Your task to perform on an android device: Open settings on Google Maps Image 0: 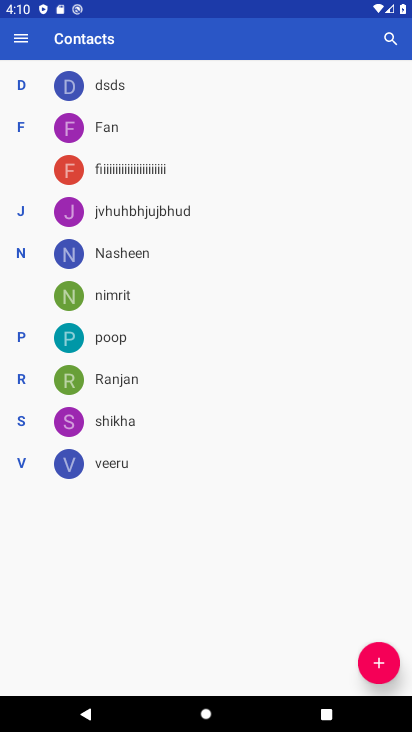
Step 0: press home button
Your task to perform on an android device: Open settings on Google Maps Image 1: 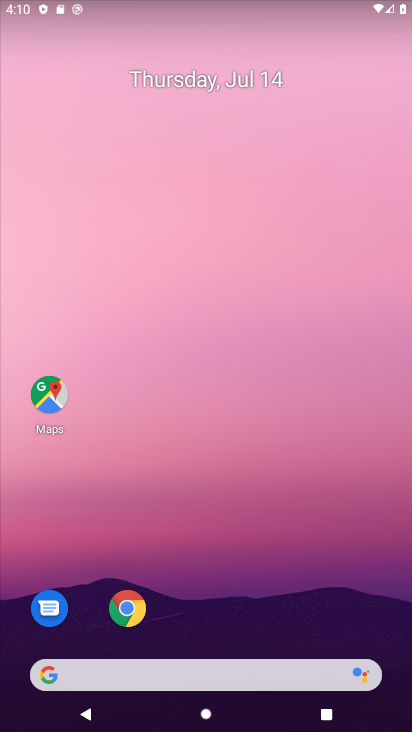
Step 1: drag from (216, 607) to (216, 152)
Your task to perform on an android device: Open settings on Google Maps Image 2: 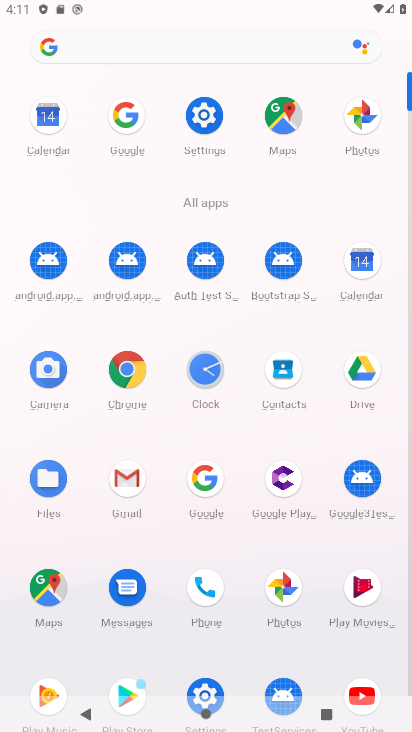
Step 2: click (275, 141)
Your task to perform on an android device: Open settings on Google Maps Image 3: 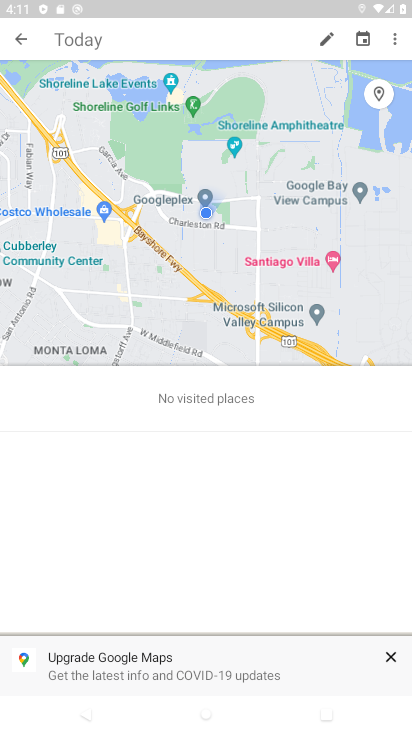
Step 3: click (21, 43)
Your task to perform on an android device: Open settings on Google Maps Image 4: 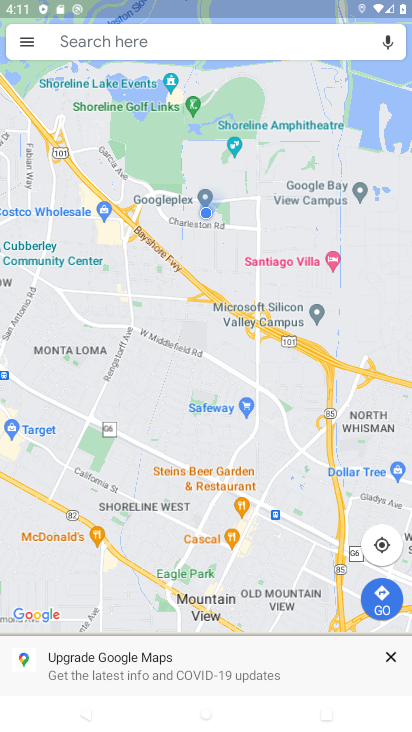
Step 4: click (21, 43)
Your task to perform on an android device: Open settings on Google Maps Image 5: 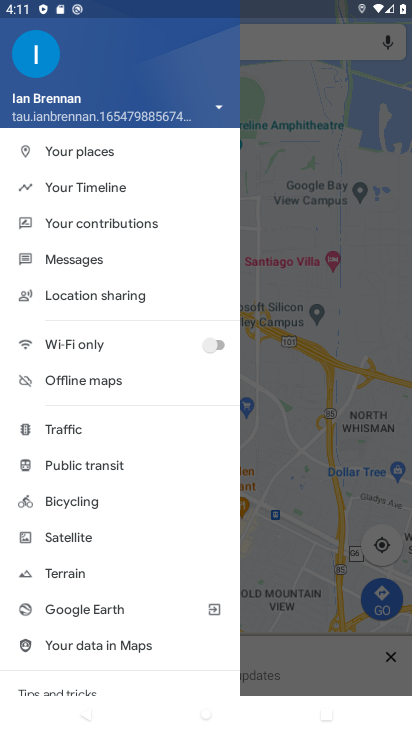
Step 5: drag from (123, 581) to (136, 285)
Your task to perform on an android device: Open settings on Google Maps Image 6: 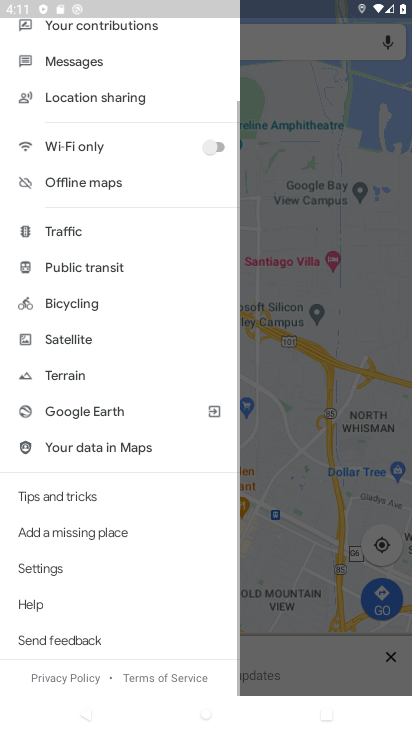
Step 6: click (54, 568)
Your task to perform on an android device: Open settings on Google Maps Image 7: 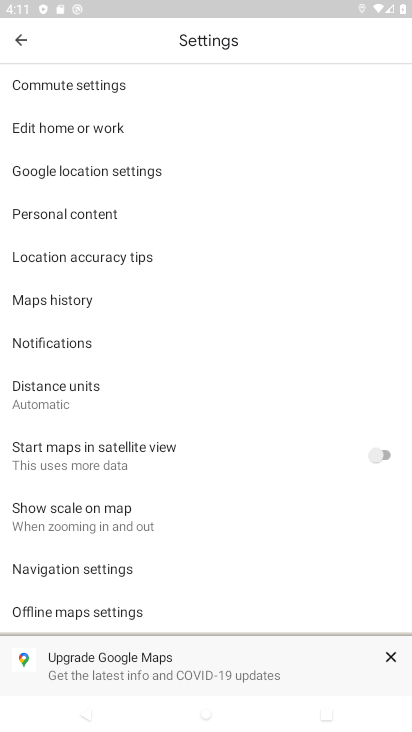
Step 7: task complete